Your task to perform on an android device: change the clock display to analog Image 0: 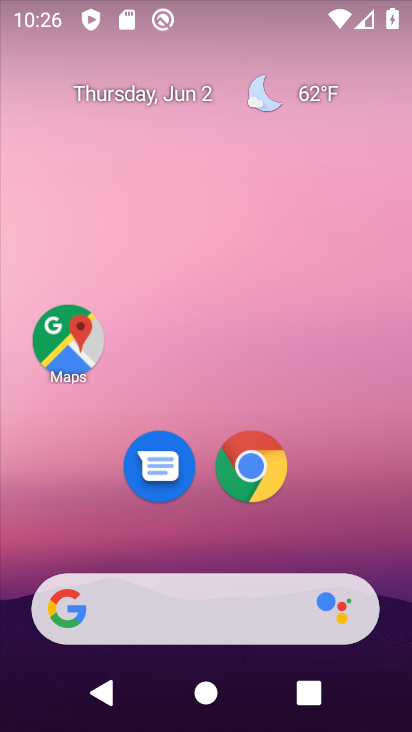
Step 0: drag from (153, 698) to (175, 296)
Your task to perform on an android device: change the clock display to analog Image 1: 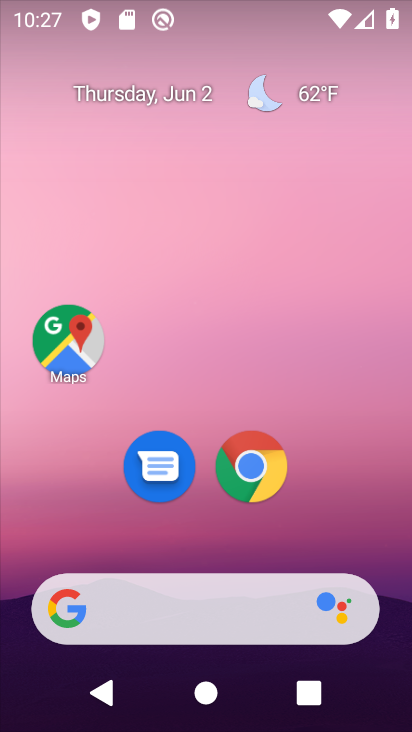
Step 1: drag from (150, 731) to (95, 397)
Your task to perform on an android device: change the clock display to analog Image 2: 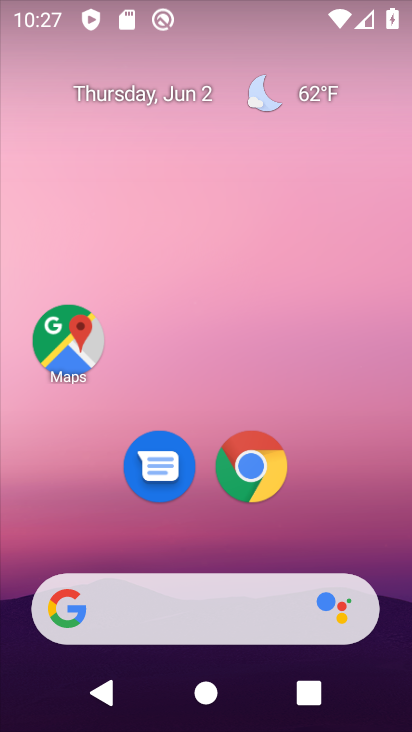
Step 2: drag from (149, 672) to (166, 53)
Your task to perform on an android device: change the clock display to analog Image 3: 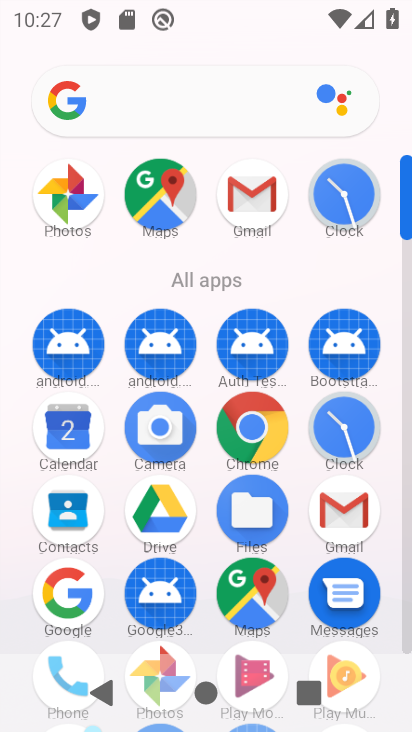
Step 3: click (360, 208)
Your task to perform on an android device: change the clock display to analog Image 4: 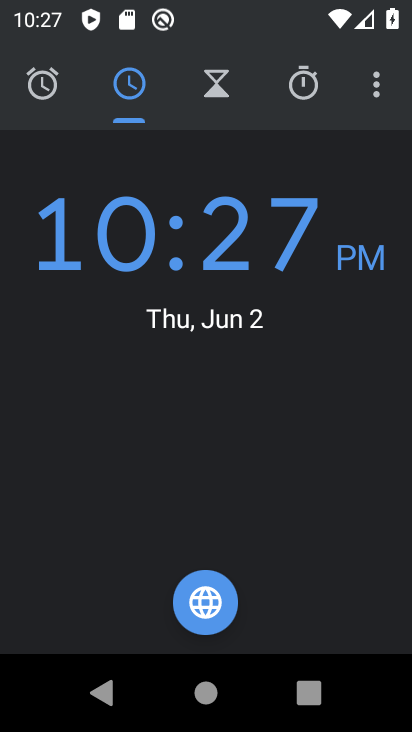
Step 4: click (380, 96)
Your task to perform on an android device: change the clock display to analog Image 5: 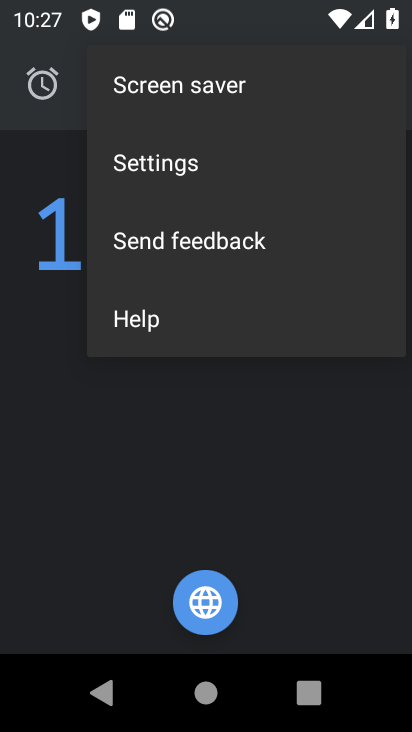
Step 5: click (197, 182)
Your task to perform on an android device: change the clock display to analog Image 6: 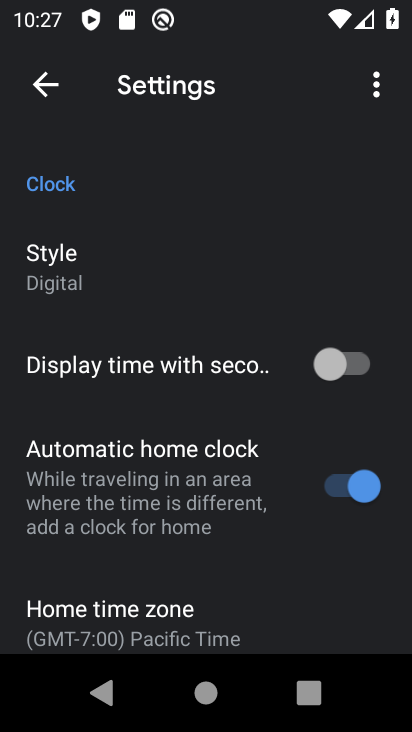
Step 6: click (135, 278)
Your task to perform on an android device: change the clock display to analog Image 7: 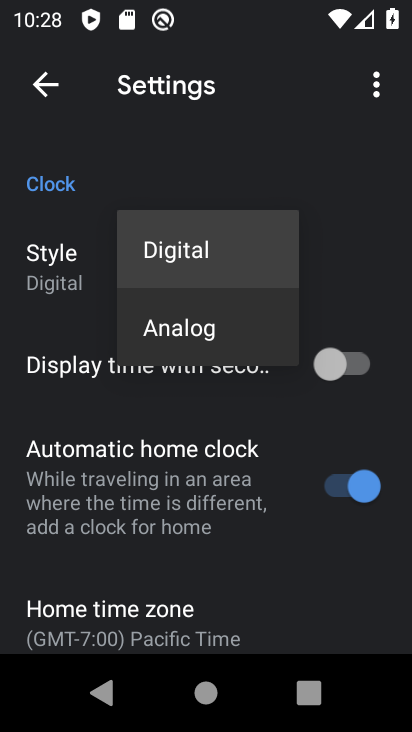
Step 7: click (261, 318)
Your task to perform on an android device: change the clock display to analog Image 8: 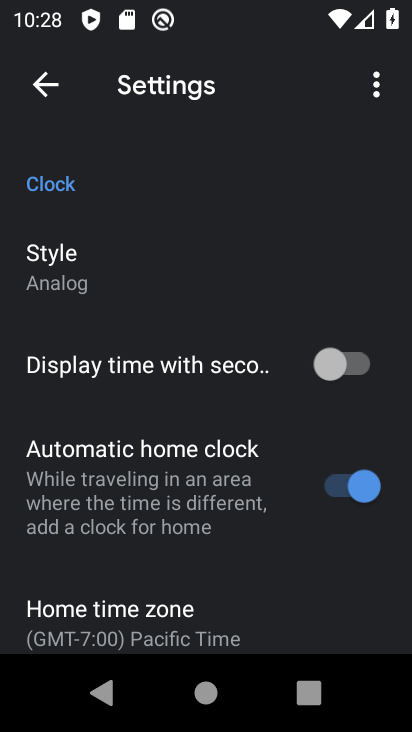
Step 8: task complete